Your task to perform on an android device: Open Google Maps Image 0: 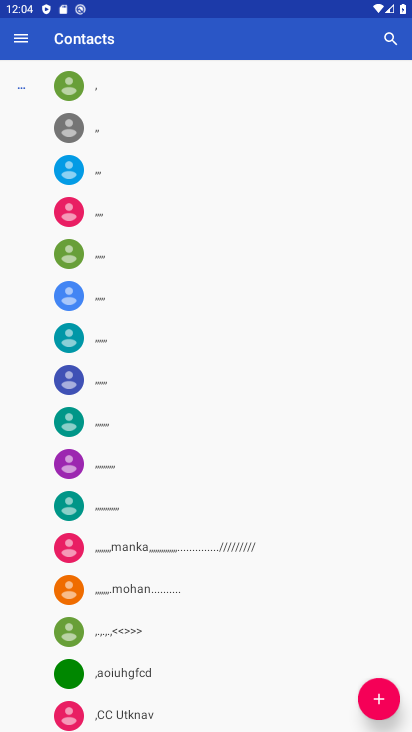
Step 0: press home button
Your task to perform on an android device: Open Google Maps Image 1: 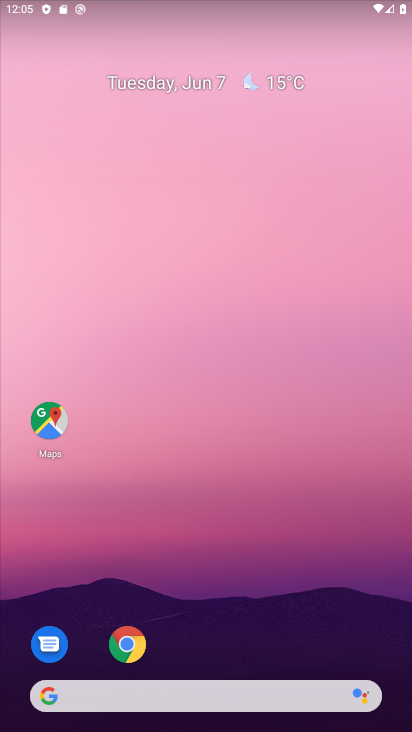
Step 1: click (48, 425)
Your task to perform on an android device: Open Google Maps Image 2: 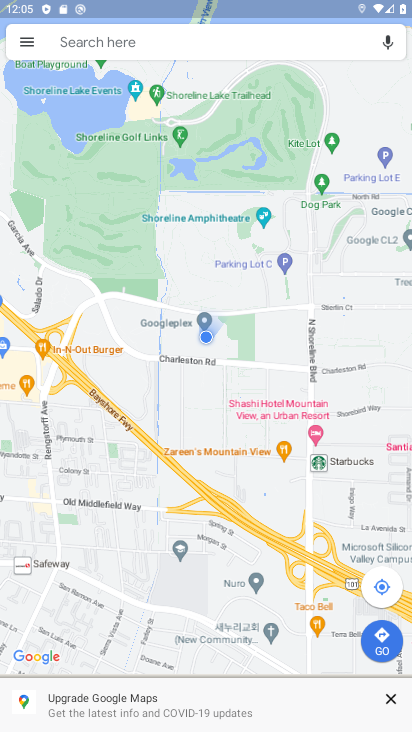
Step 2: task complete